Your task to perform on an android device: Play the last video I watched on Youtube Image 0: 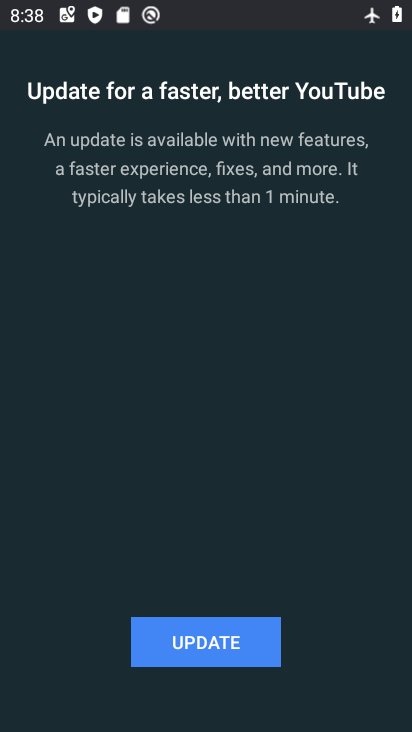
Step 0: click (184, 656)
Your task to perform on an android device: Play the last video I watched on Youtube Image 1: 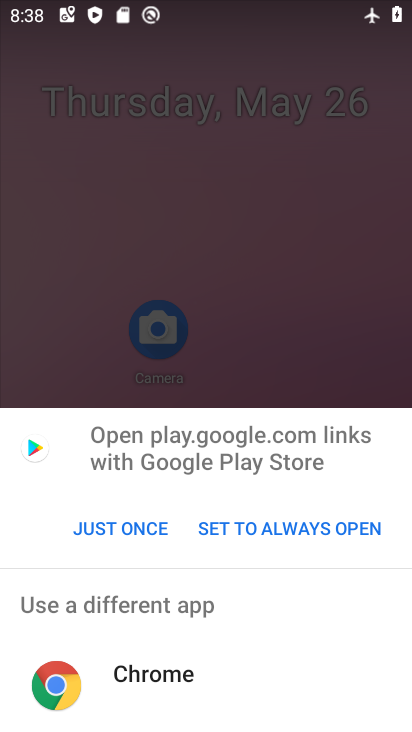
Step 1: click (153, 532)
Your task to perform on an android device: Play the last video I watched on Youtube Image 2: 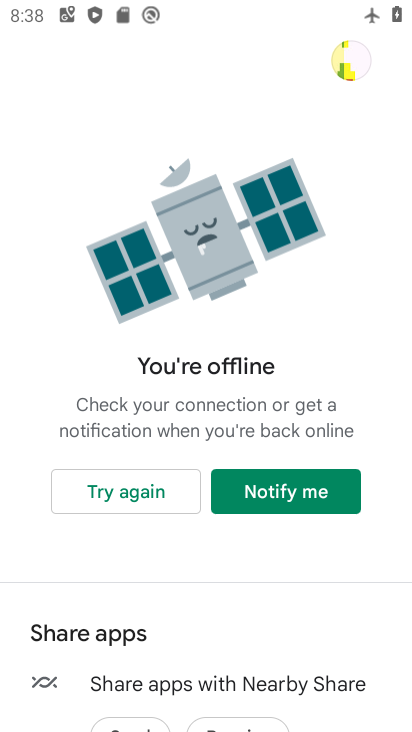
Step 2: task complete